Your task to perform on an android device: choose inbox layout in the gmail app Image 0: 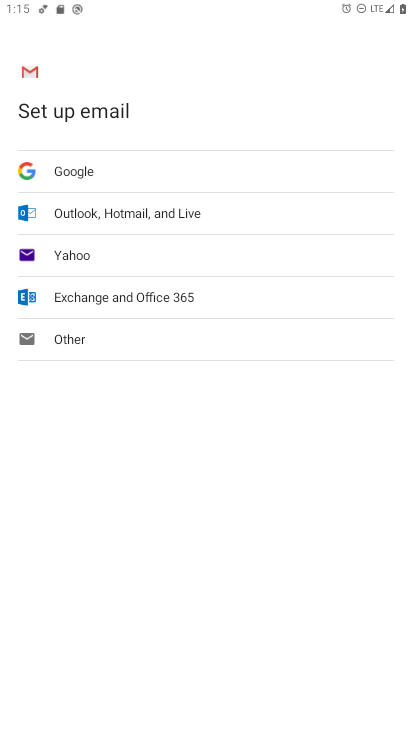
Step 0: press home button
Your task to perform on an android device: choose inbox layout in the gmail app Image 1: 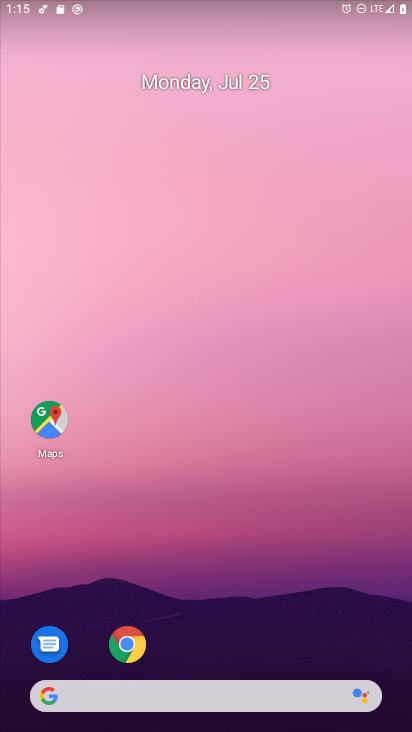
Step 1: drag from (269, 608) to (220, 53)
Your task to perform on an android device: choose inbox layout in the gmail app Image 2: 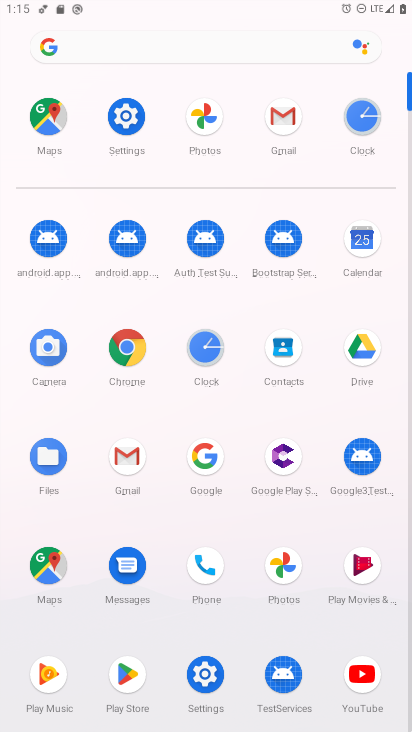
Step 2: click (123, 449)
Your task to perform on an android device: choose inbox layout in the gmail app Image 3: 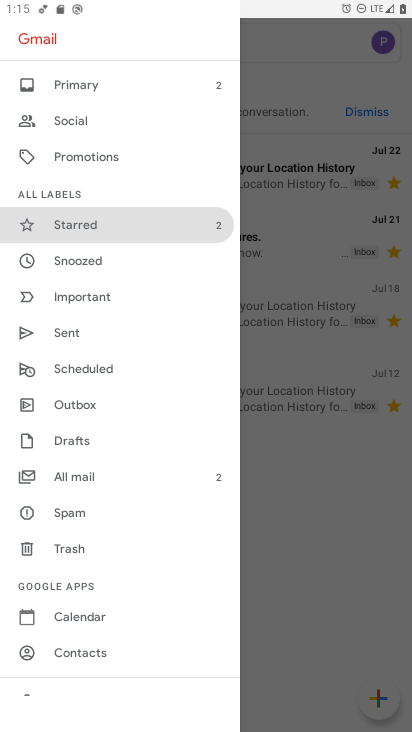
Step 3: drag from (130, 622) to (138, 0)
Your task to perform on an android device: choose inbox layout in the gmail app Image 4: 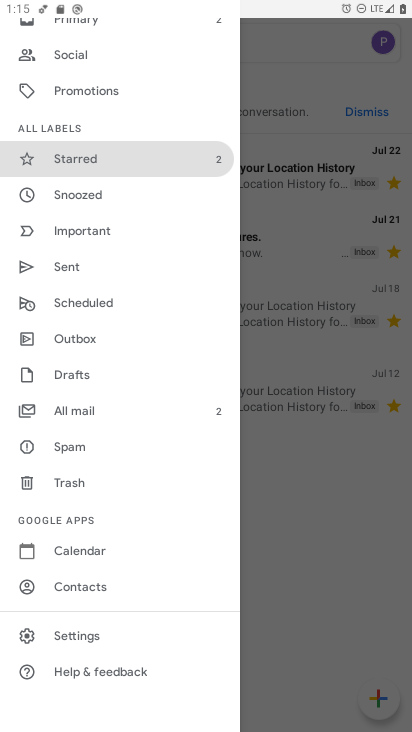
Step 4: click (114, 628)
Your task to perform on an android device: choose inbox layout in the gmail app Image 5: 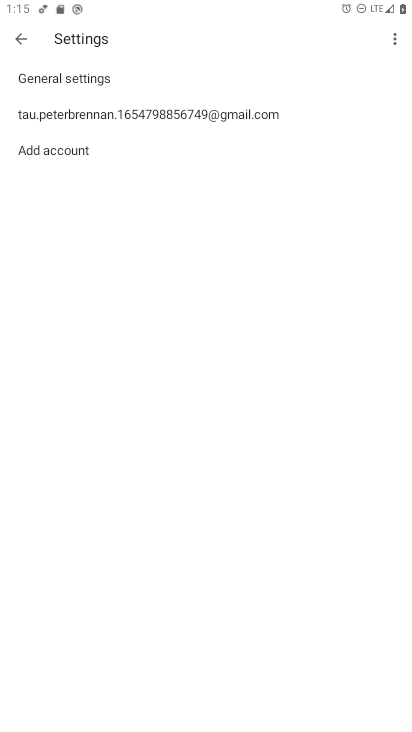
Step 5: click (223, 113)
Your task to perform on an android device: choose inbox layout in the gmail app Image 6: 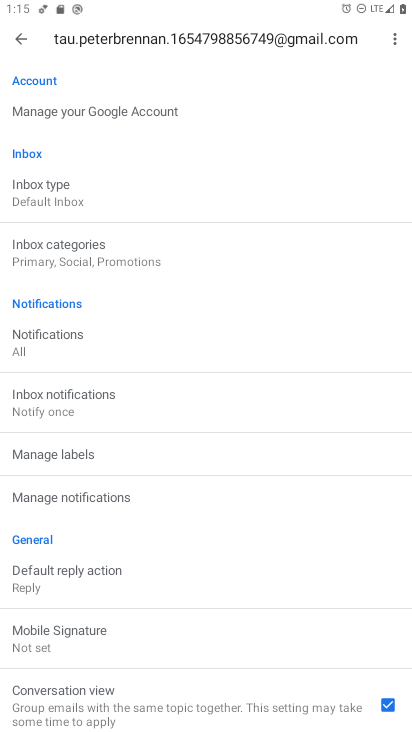
Step 6: click (46, 203)
Your task to perform on an android device: choose inbox layout in the gmail app Image 7: 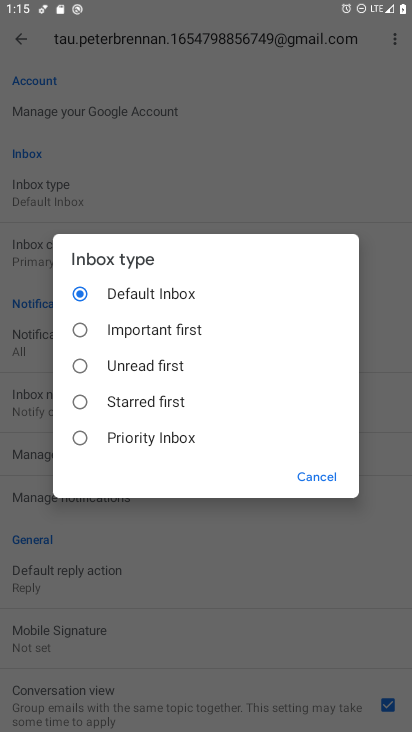
Step 7: click (111, 353)
Your task to perform on an android device: choose inbox layout in the gmail app Image 8: 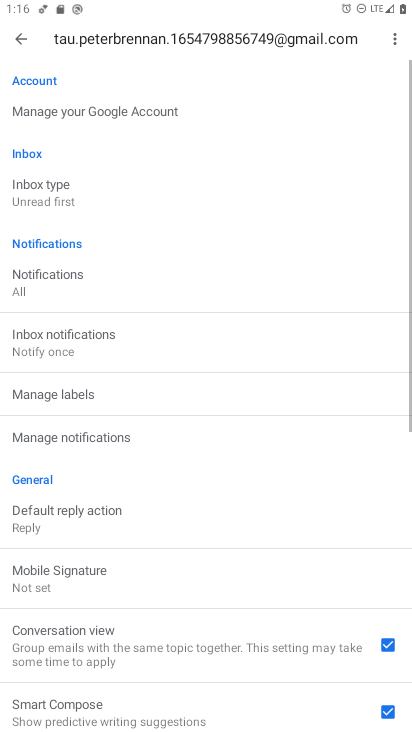
Step 8: task complete